Your task to perform on an android device: toggle notifications settings in the gmail app Image 0: 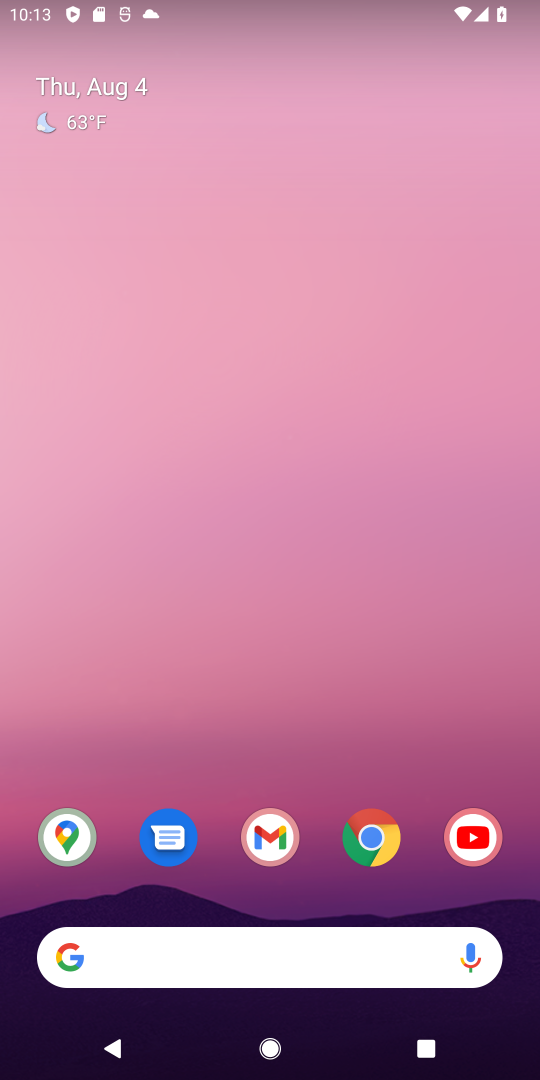
Step 0: drag from (241, 904) to (244, 95)
Your task to perform on an android device: toggle notifications settings in the gmail app Image 1: 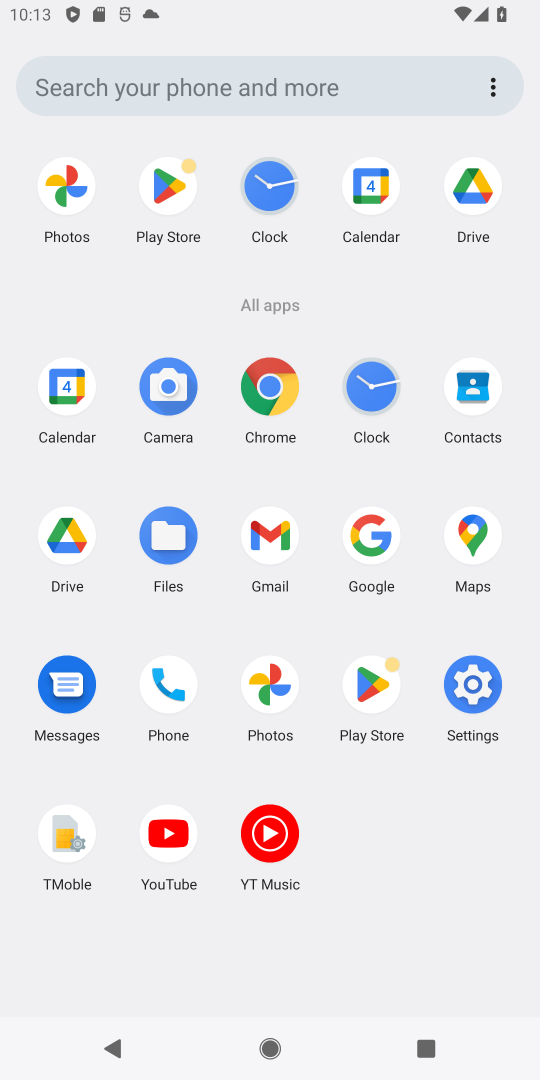
Step 1: click (274, 527)
Your task to perform on an android device: toggle notifications settings in the gmail app Image 2: 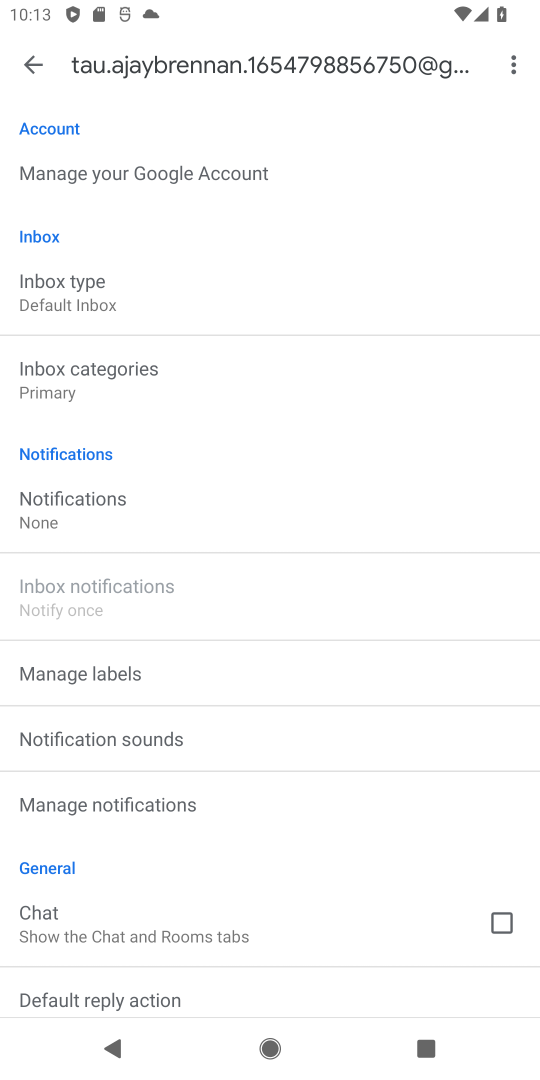
Step 2: click (107, 512)
Your task to perform on an android device: toggle notifications settings in the gmail app Image 3: 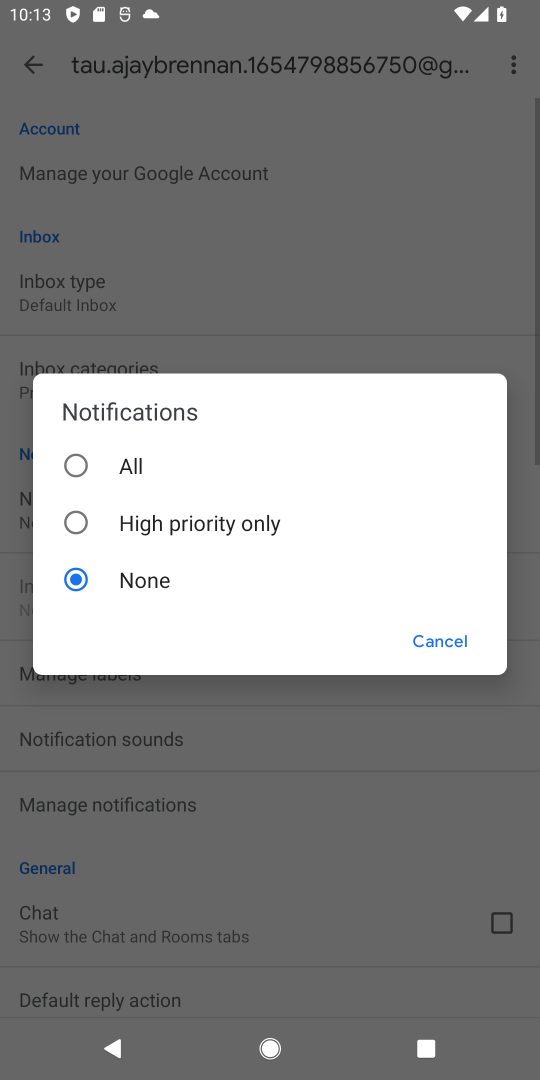
Step 3: click (110, 448)
Your task to perform on an android device: toggle notifications settings in the gmail app Image 4: 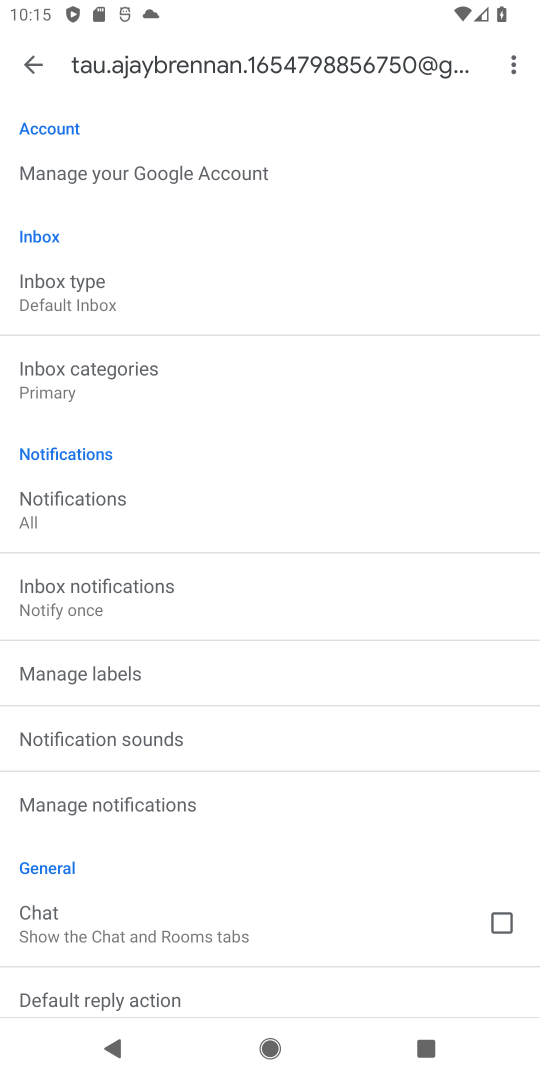
Step 4: task complete